Your task to perform on an android device: toggle priority inbox in the gmail app Image 0: 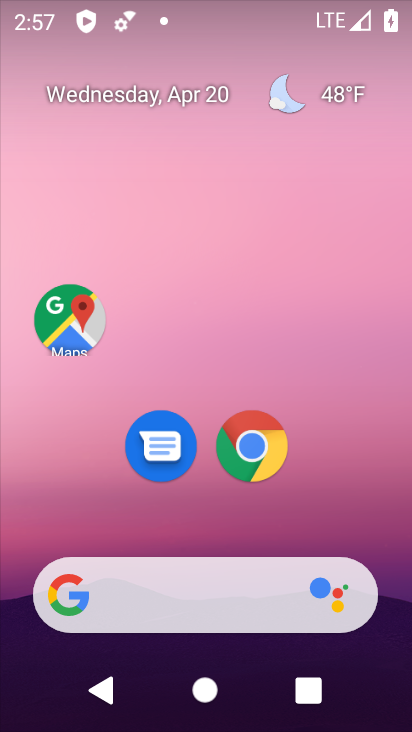
Step 0: drag from (326, 517) to (397, 130)
Your task to perform on an android device: toggle priority inbox in the gmail app Image 1: 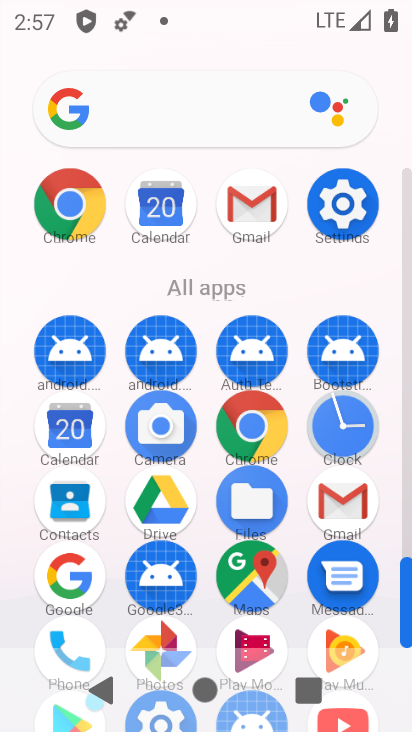
Step 1: click (369, 490)
Your task to perform on an android device: toggle priority inbox in the gmail app Image 2: 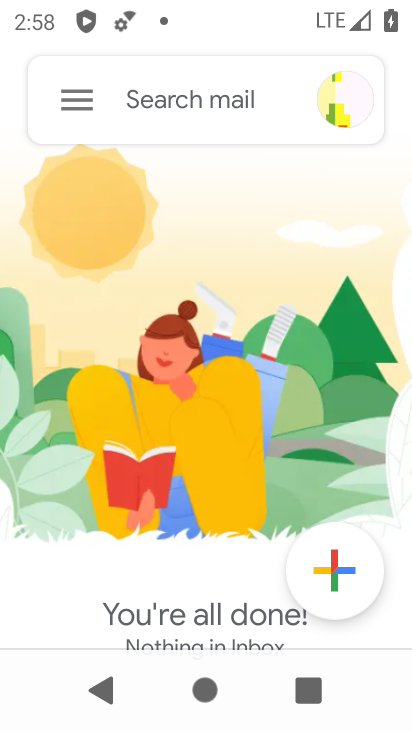
Step 2: click (89, 99)
Your task to perform on an android device: toggle priority inbox in the gmail app Image 3: 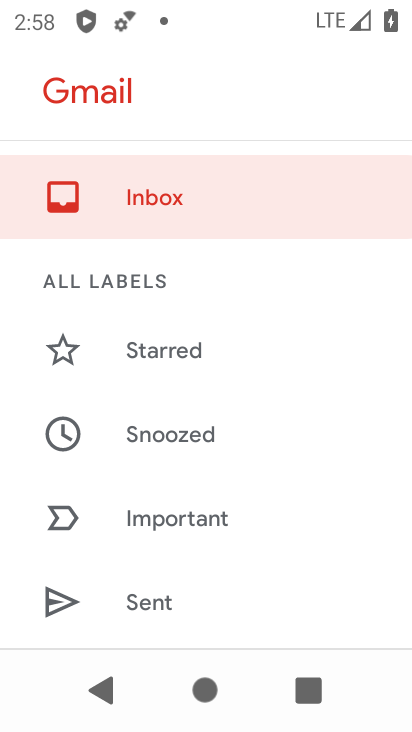
Step 3: drag from (90, 317) to (130, 188)
Your task to perform on an android device: toggle priority inbox in the gmail app Image 4: 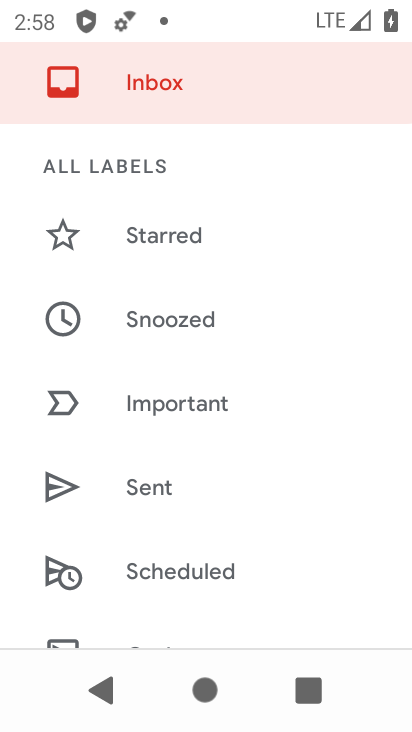
Step 4: drag from (60, 277) to (150, 131)
Your task to perform on an android device: toggle priority inbox in the gmail app Image 5: 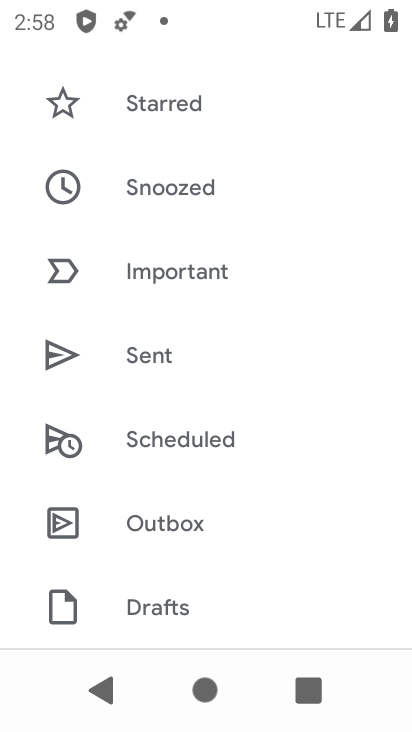
Step 5: drag from (97, 238) to (175, 91)
Your task to perform on an android device: toggle priority inbox in the gmail app Image 6: 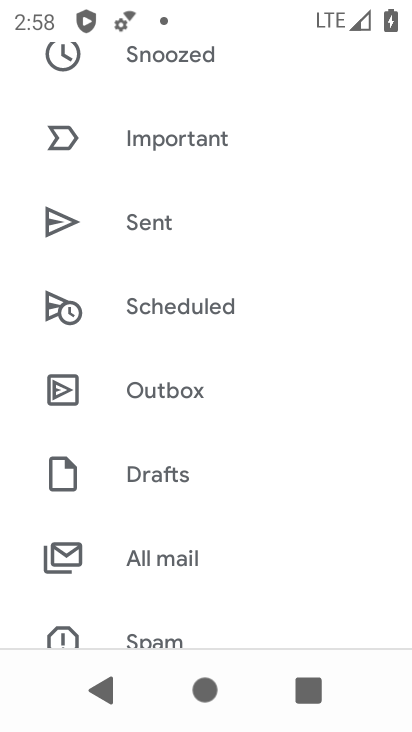
Step 6: drag from (81, 162) to (134, 65)
Your task to perform on an android device: toggle priority inbox in the gmail app Image 7: 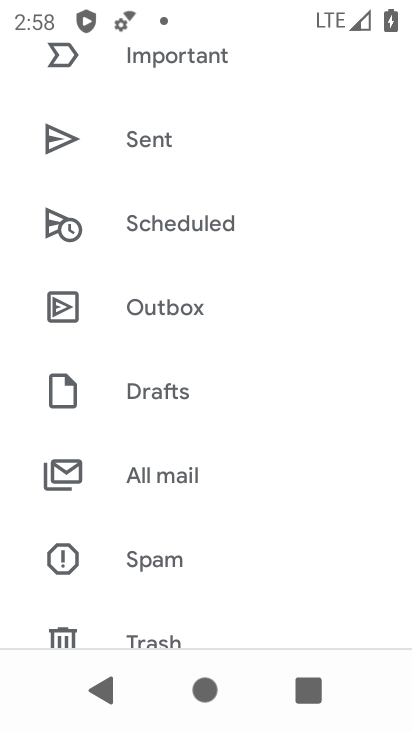
Step 7: drag from (62, 193) to (139, 56)
Your task to perform on an android device: toggle priority inbox in the gmail app Image 8: 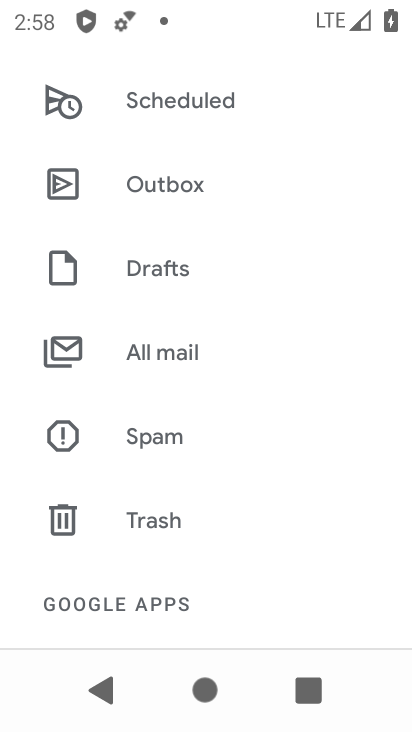
Step 8: drag from (80, 146) to (173, 18)
Your task to perform on an android device: toggle priority inbox in the gmail app Image 9: 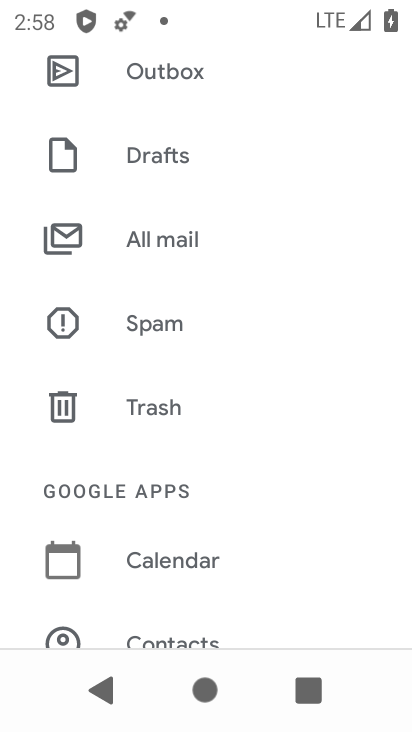
Step 9: drag from (70, 125) to (165, 2)
Your task to perform on an android device: toggle priority inbox in the gmail app Image 10: 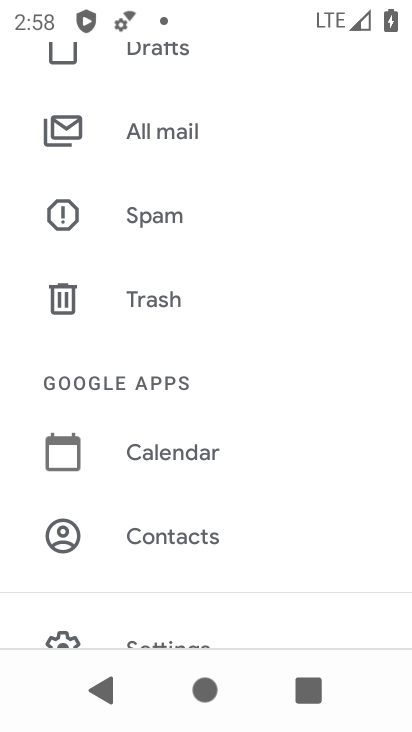
Step 10: drag from (83, 91) to (146, 3)
Your task to perform on an android device: toggle priority inbox in the gmail app Image 11: 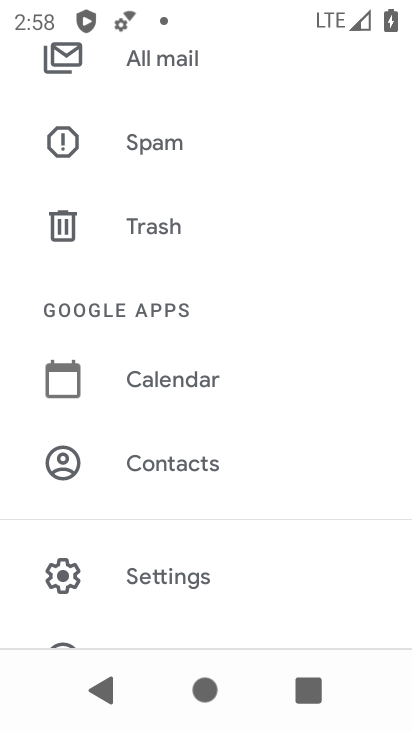
Step 11: drag from (91, 101) to (147, 1)
Your task to perform on an android device: toggle priority inbox in the gmail app Image 12: 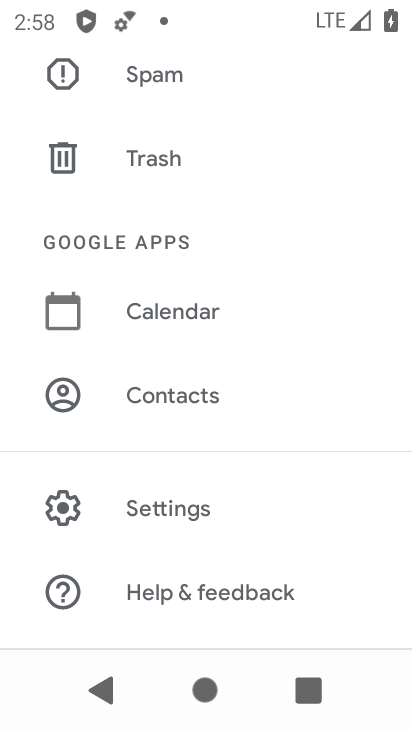
Step 12: drag from (60, 121) to (156, 4)
Your task to perform on an android device: toggle priority inbox in the gmail app Image 13: 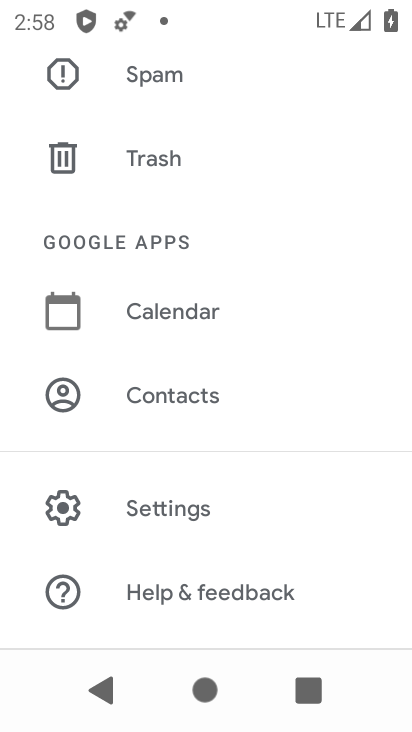
Step 13: click (159, 509)
Your task to perform on an android device: toggle priority inbox in the gmail app Image 14: 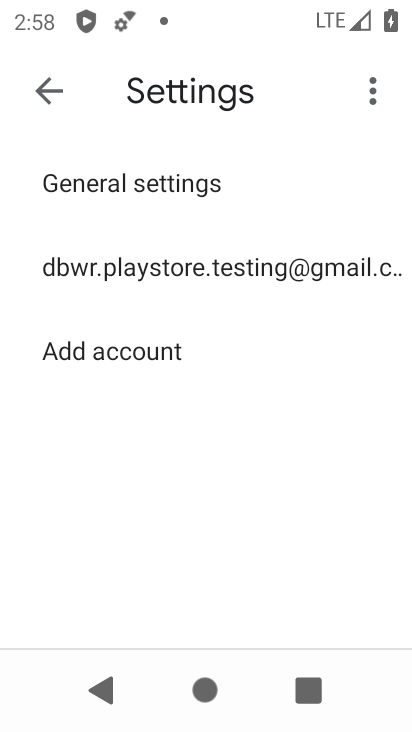
Step 14: drag from (168, 444) to (219, 294)
Your task to perform on an android device: toggle priority inbox in the gmail app Image 15: 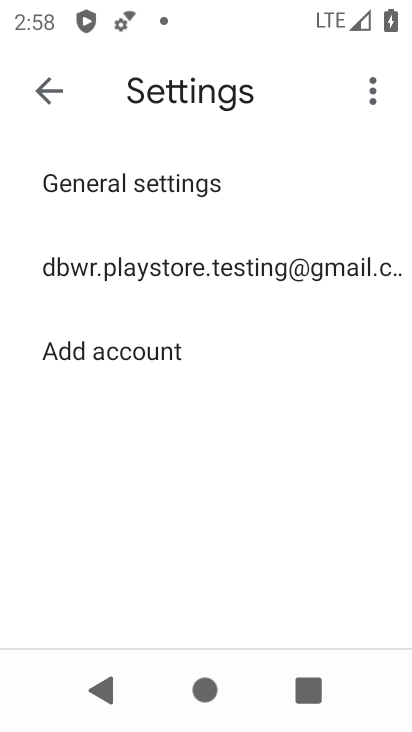
Step 15: drag from (177, 448) to (197, 532)
Your task to perform on an android device: toggle priority inbox in the gmail app Image 16: 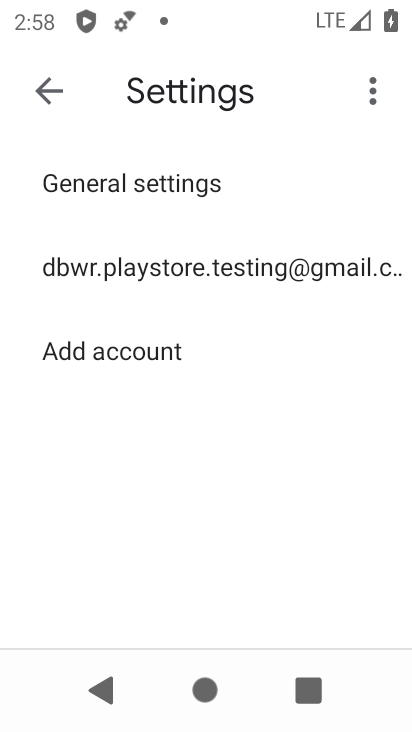
Step 16: drag from (318, 155) to (248, 448)
Your task to perform on an android device: toggle priority inbox in the gmail app Image 17: 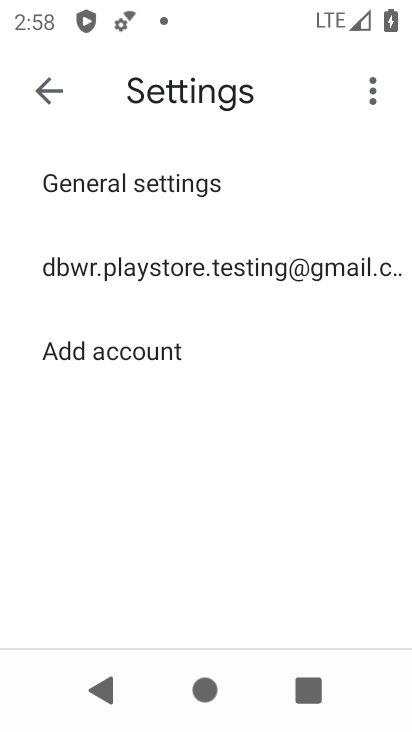
Step 17: click (95, 268)
Your task to perform on an android device: toggle priority inbox in the gmail app Image 18: 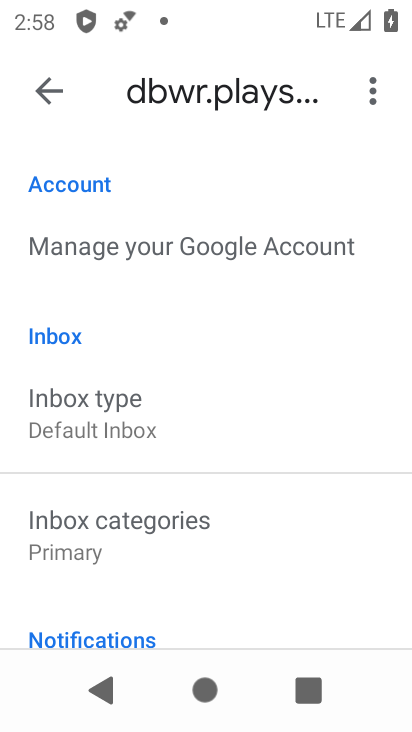
Step 18: click (95, 413)
Your task to perform on an android device: toggle priority inbox in the gmail app Image 19: 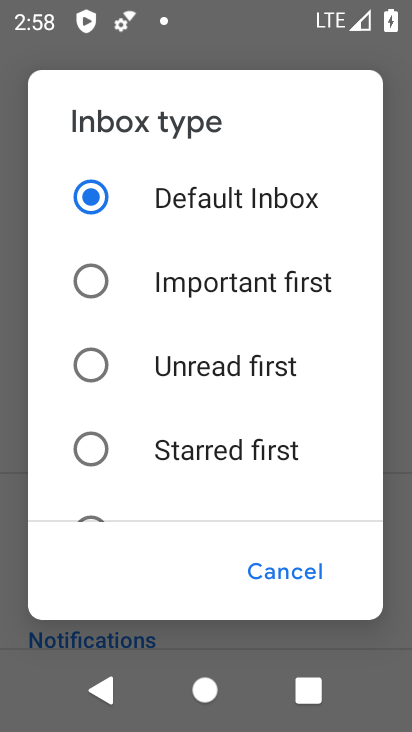
Step 19: drag from (160, 329) to (232, 118)
Your task to perform on an android device: toggle priority inbox in the gmail app Image 20: 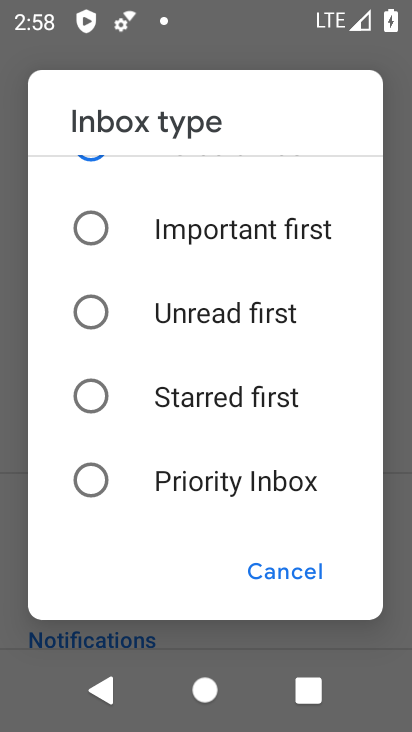
Step 20: click (83, 476)
Your task to perform on an android device: toggle priority inbox in the gmail app Image 21: 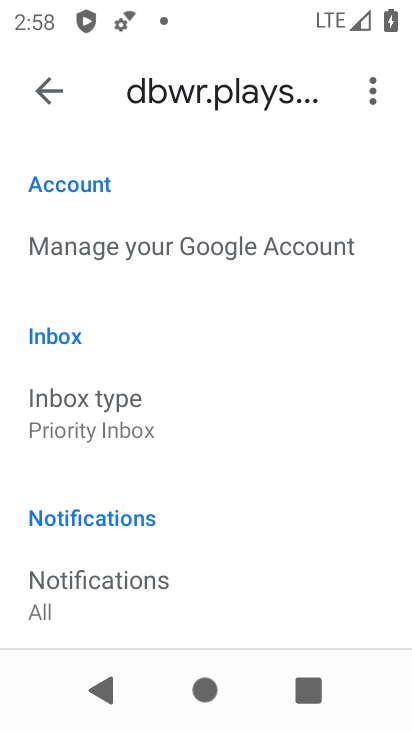
Step 21: task complete